Your task to perform on an android device: turn on javascript in the chrome app Image 0: 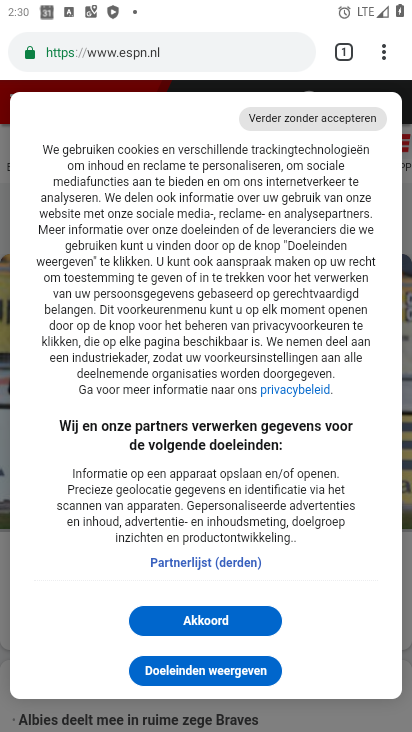
Step 0: click (380, 56)
Your task to perform on an android device: turn on javascript in the chrome app Image 1: 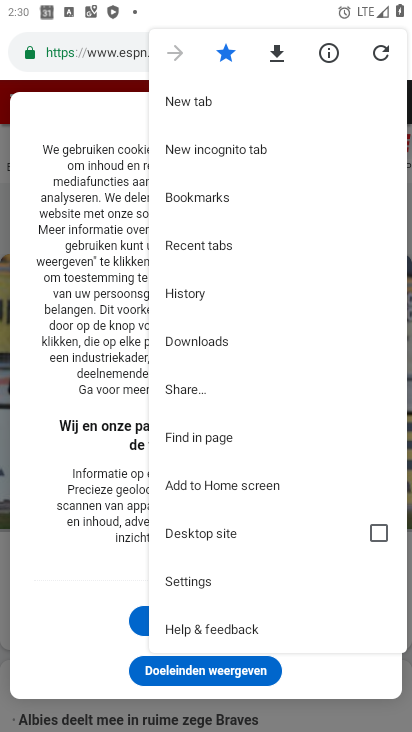
Step 1: click (198, 579)
Your task to perform on an android device: turn on javascript in the chrome app Image 2: 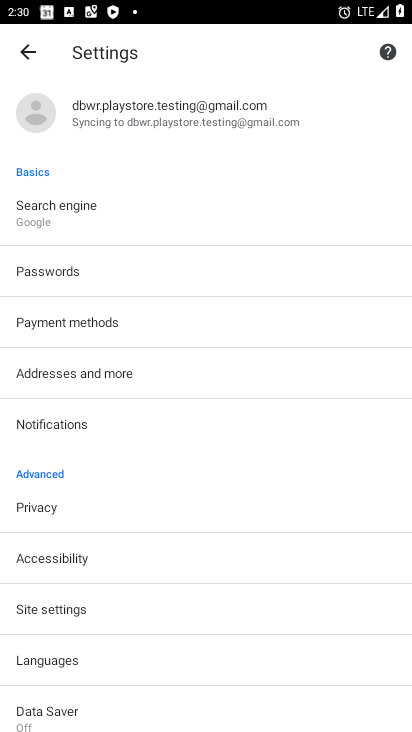
Step 2: click (40, 608)
Your task to perform on an android device: turn on javascript in the chrome app Image 3: 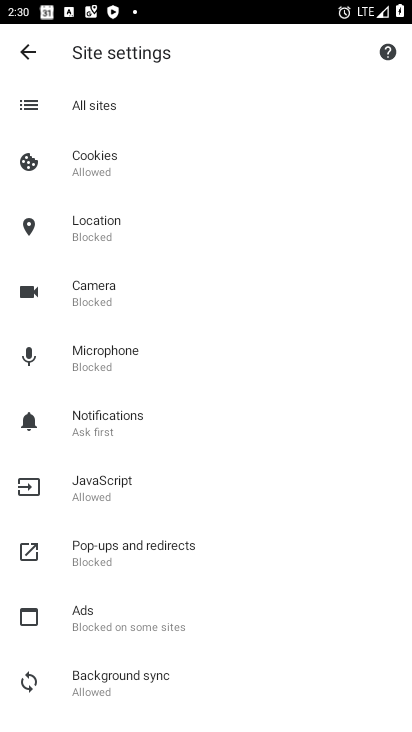
Step 3: click (98, 484)
Your task to perform on an android device: turn on javascript in the chrome app Image 4: 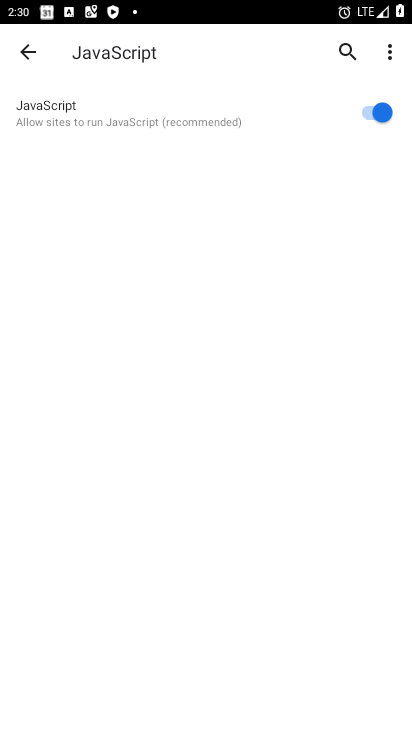
Step 4: task complete